Your task to perform on an android device: Add usb-b to the cart on newegg, then select checkout. Image 0: 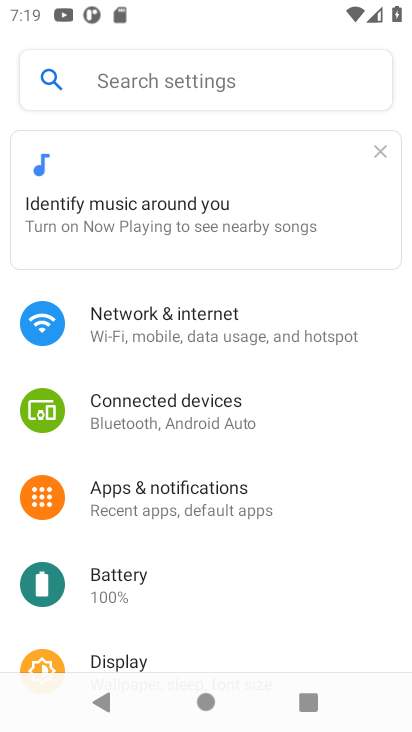
Step 0: press home button
Your task to perform on an android device: Add usb-b to the cart on newegg, then select checkout. Image 1: 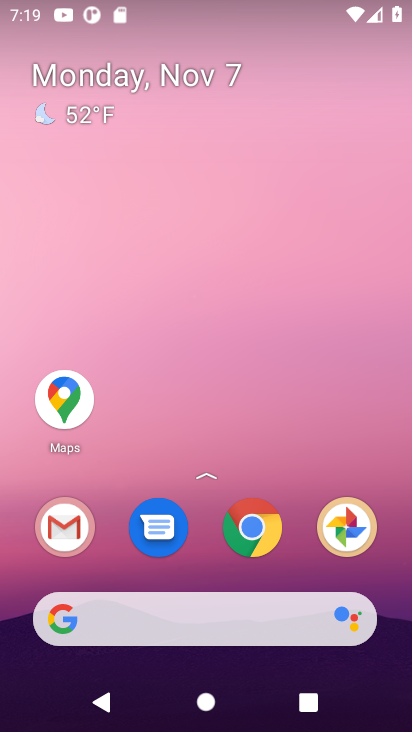
Step 1: click (257, 539)
Your task to perform on an android device: Add usb-b to the cart on newegg, then select checkout. Image 2: 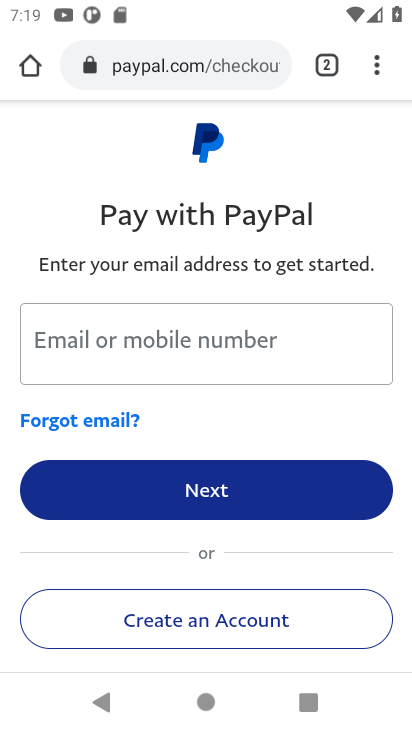
Step 2: click (200, 79)
Your task to perform on an android device: Add usb-b to the cart on newegg, then select checkout. Image 3: 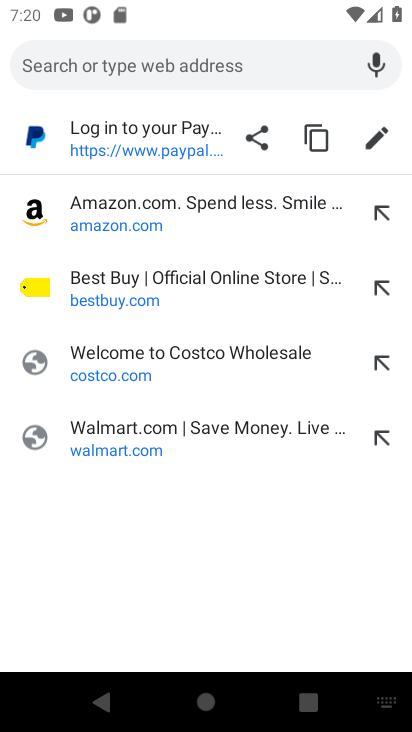
Step 3: type "newegg"
Your task to perform on an android device: Add usb-b to the cart on newegg, then select checkout. Image 4: 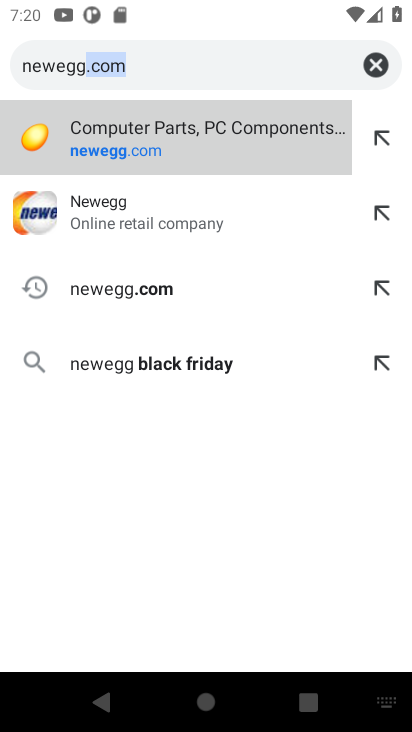
Step 4: click (278, 162)
Your task to perform on an android device: Add usb-b to the cart on newegg, then select checkout. Image 5: 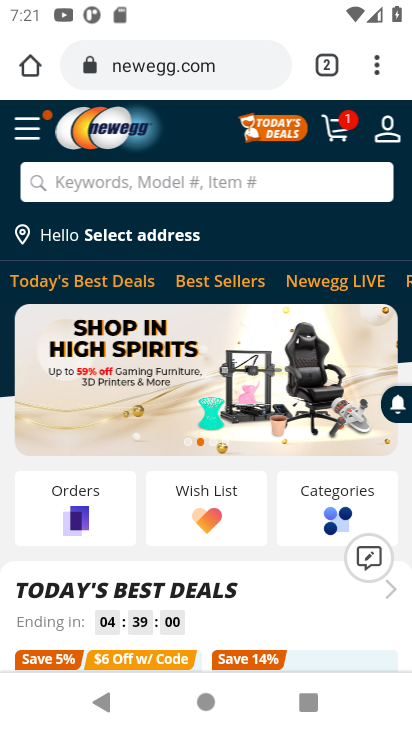
Step 5: click (182, 178)
Your task to perform on an android device: Add usb-b to the cart on newegg, then select checkout. Image 6: 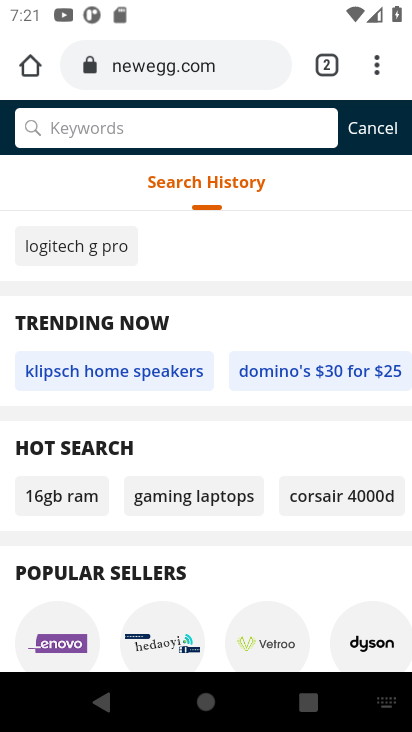
Step 6: type "usb-b"
Your task to perform on an android device: Add usb-b to the cart on newegg, then select checkout. Image 7: 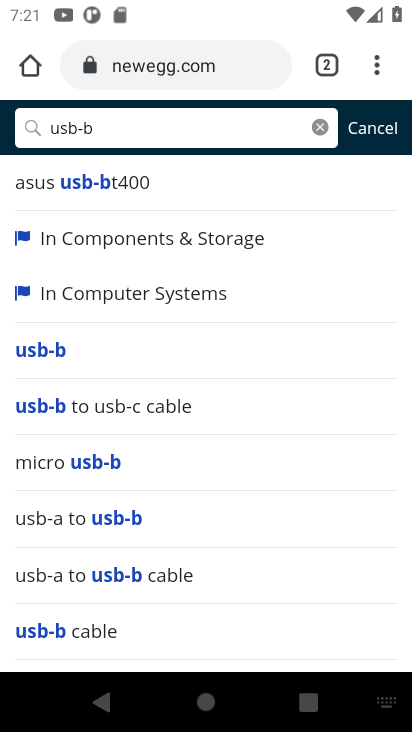
Step 7: press enter
Your task to perform on an android device: Add usb-b to the cart on newegg, then select checkout. Image 8: 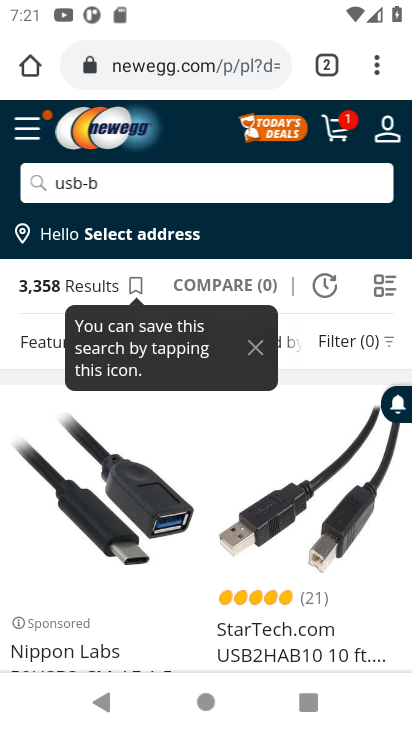
Step 8: drag from (232, 523) to (231, 84)
Your task to perform on an android device: Add usb-b to the cart on newegg, then select checkout. Image 9: 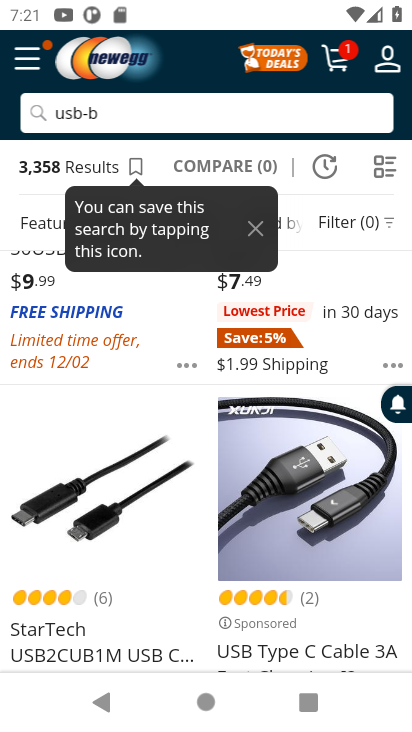
Step 9: click (68, 320)
Your task to perform on an android device: Add usb-b to the cart on newegg, then select checkout. Image 10: 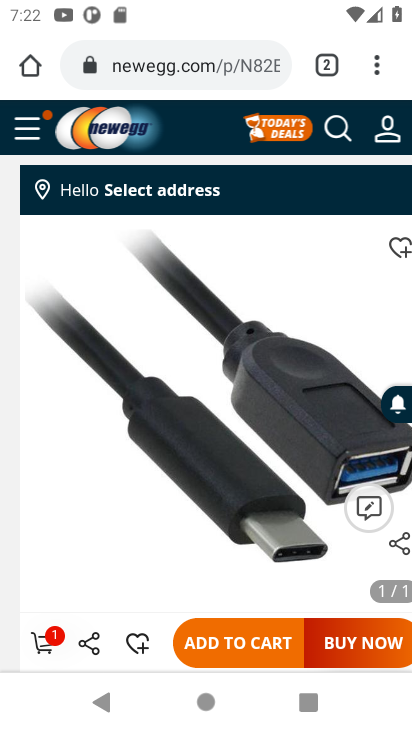
Step 10: click (221, 648)
Your task to perform on an android device: Add usb-b to the cart on newegg, then select checkout. Image 11: 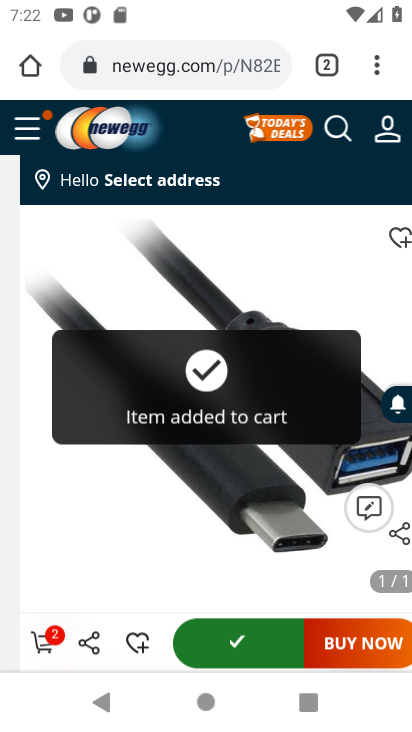
Step 11: click (42, 640)
Your task to perform on an android device: Add usb-b to the cart on newegg, then select checkout. Image 12: 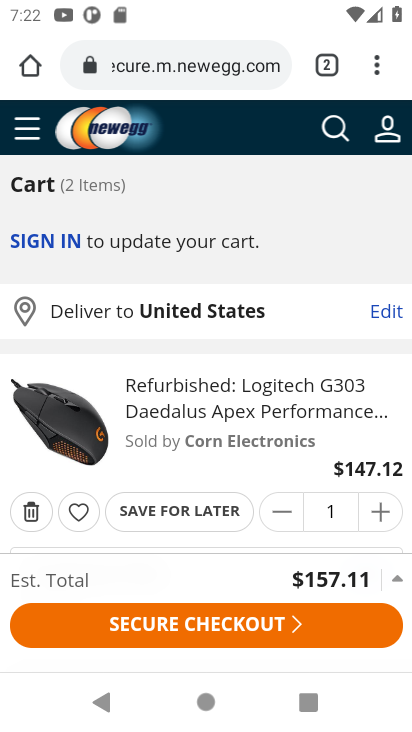
Step 12: click (228, 629)
Your task to perform on an android device: Add usb-b to the cart on newegg, then select checkout. Image 13: 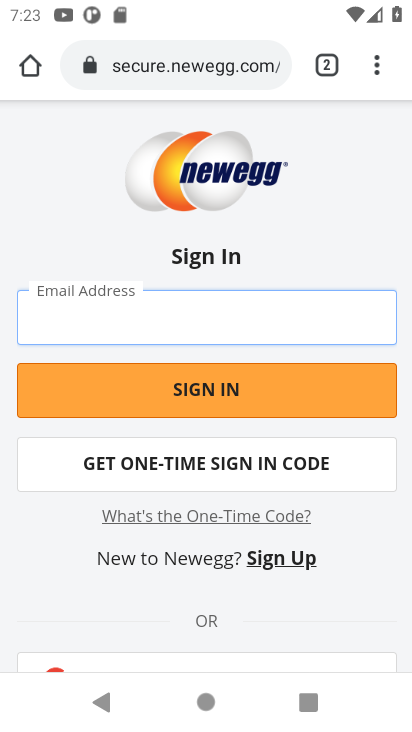
Step 13: task complete